Your task to perform on an android device: turn on improve location accuracy Image 0: 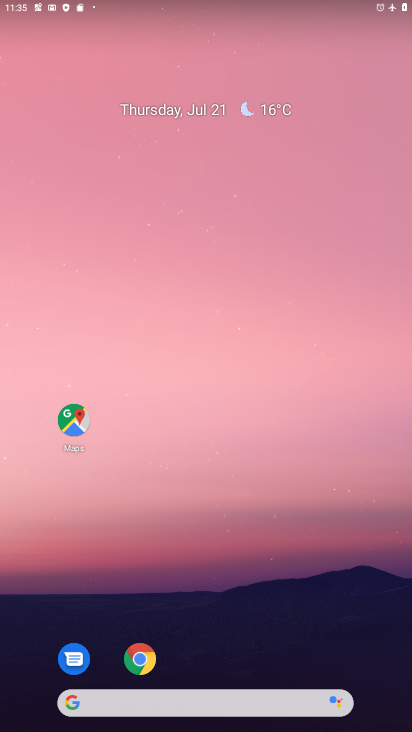
Step 0: drag from (201, 653) to (183, 108)
Your task to perform on an android device: turn on improve location accuracy Image 1: 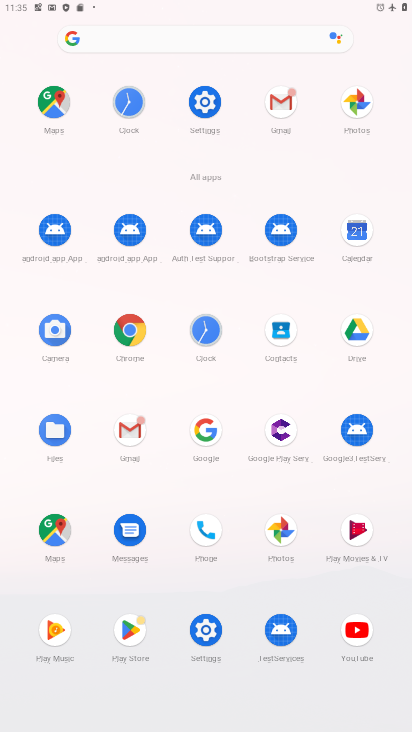
Step 1: click (204, 99)
Your task to perform on an android device: turn on improve location accuracy Image 2: 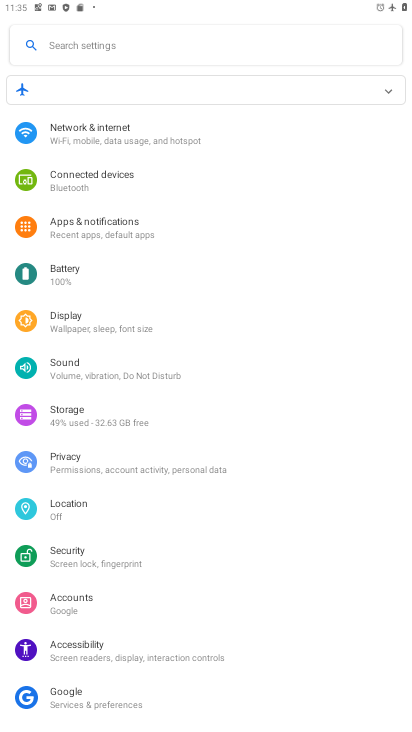
Step 2: click (104, 508)
Your task to perform on an android device: turn on improve location accuracy Image 3: 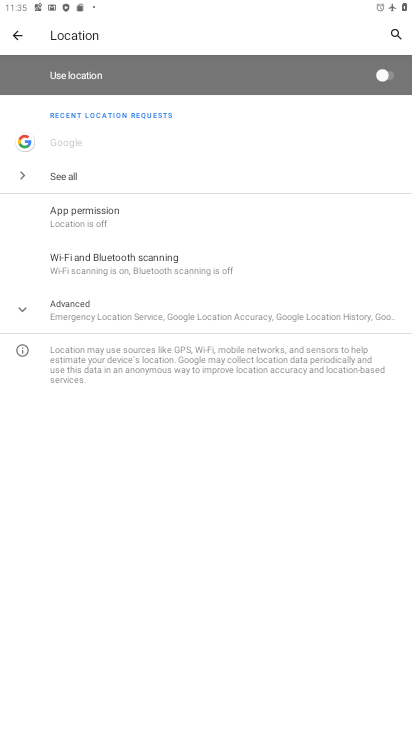
Step 3: click (97, 306)
Your task to perform on an android device: turn on improve location accuracy Image 4: 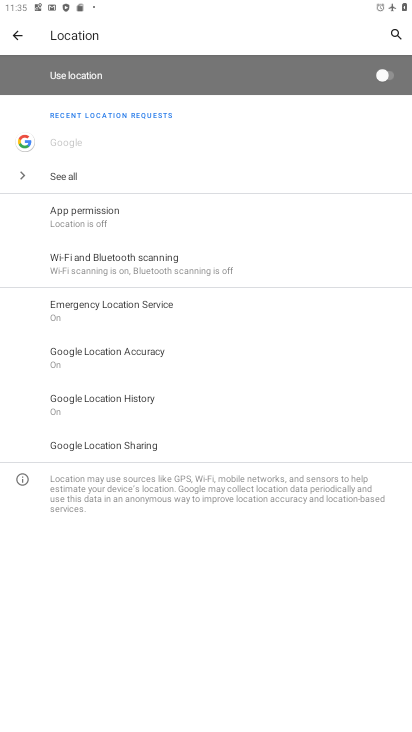
Step 4: click (118, 357)
Your task to perform on an android device: turn on improve location accuracy Image 5: 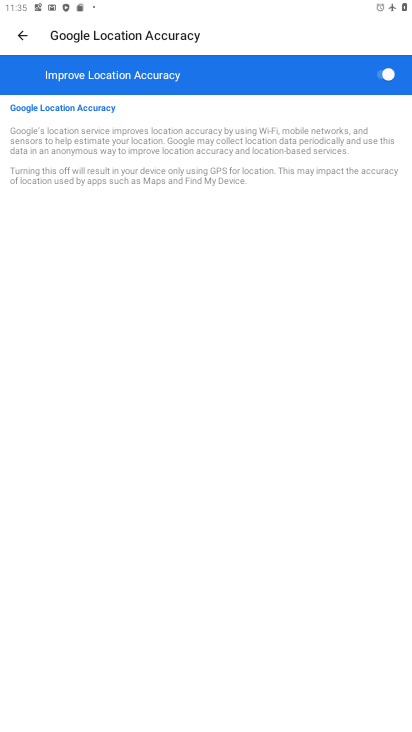
Step 5: task complete